Your task to perform on an android device: set an alarm Image 0: 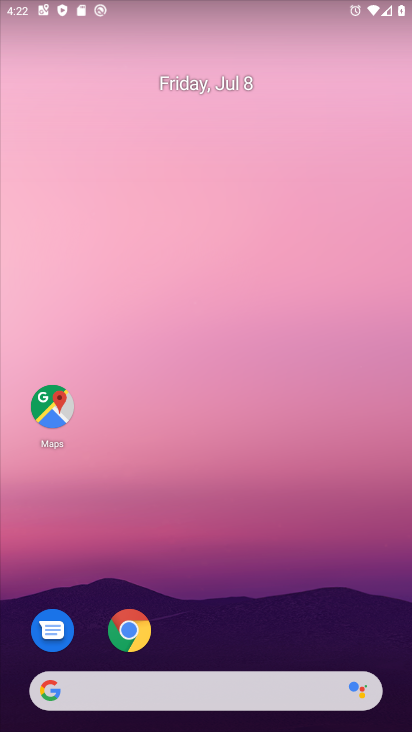
Step 0: drag from (213, 673) to (276, 69)
Your task to perform on an android device: set an alarm Image 1: 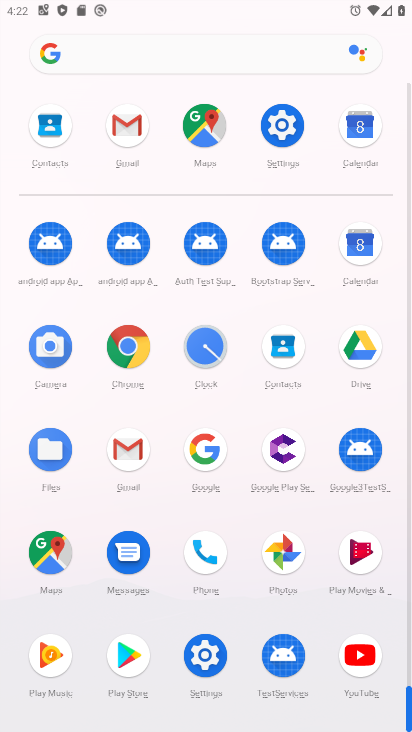
Step 1: click (202, 345)
Your task to perform on an android device: set an alarm Image 2: 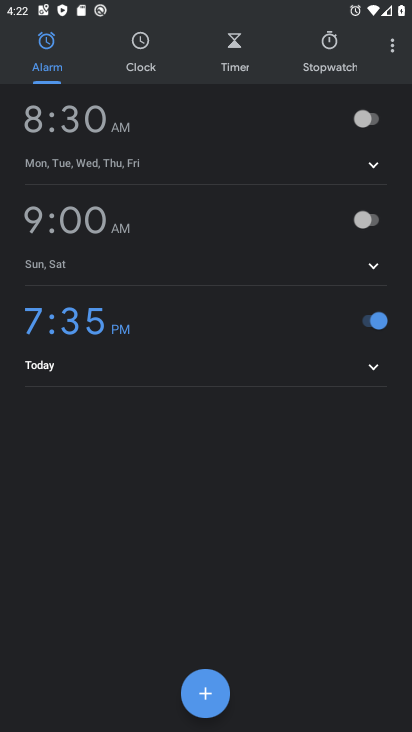
Step 2: click (208, 688)
Your task to perform on an android device: set an alarm Image 3: 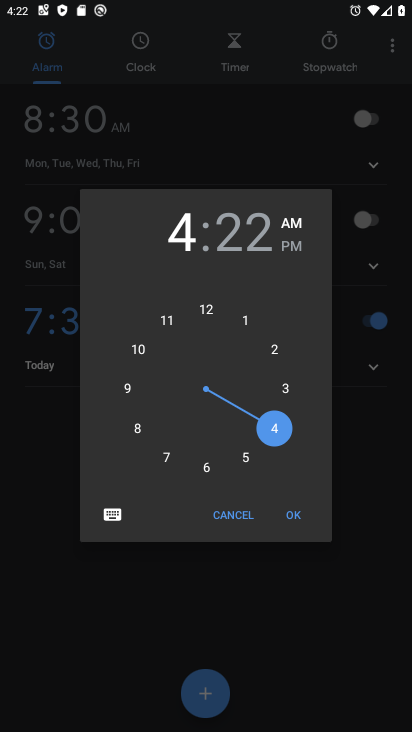
Step 3: click (121, 397)
Your task to perform on an android device: set an alarm Image 4: 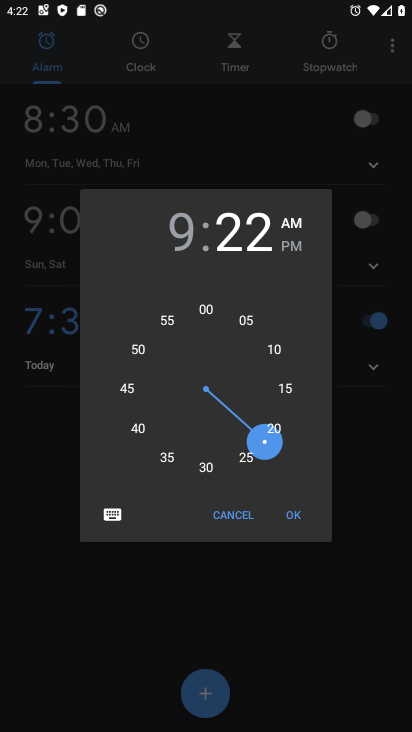
Step 4: click (121, 397)
Your task to perform on an android device: set an alarm Image 5: 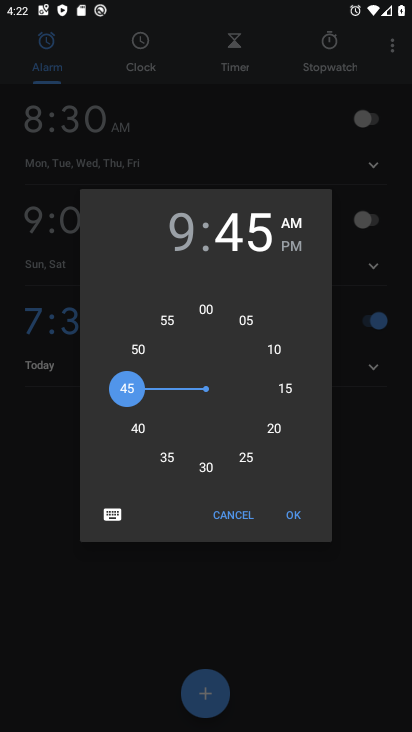
Step 5: click (287, 253)
Your task to perform on an android device: set an alarm Image 6: 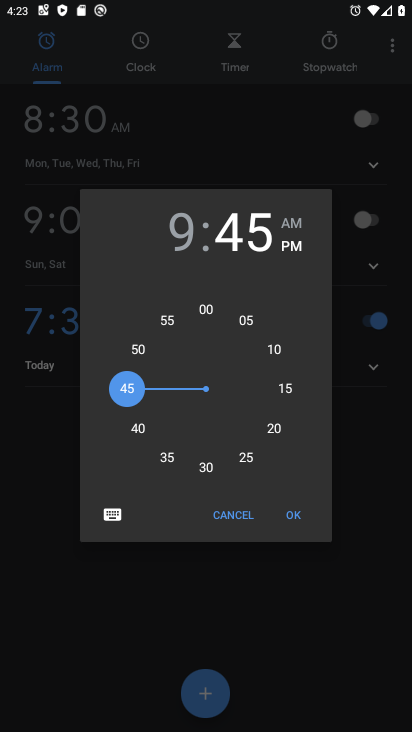
Step 6: click (283, 510)
Your task to perform on an android device: set an alarm Image 7: 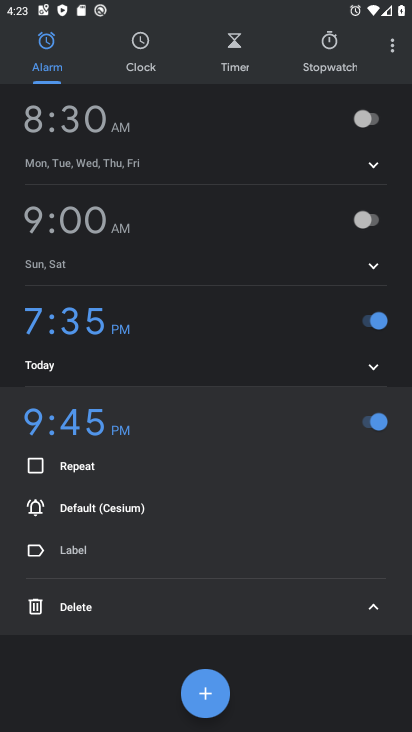
Step 7: task complete